Your task to perform on an android device: Open the web browser Image 0: 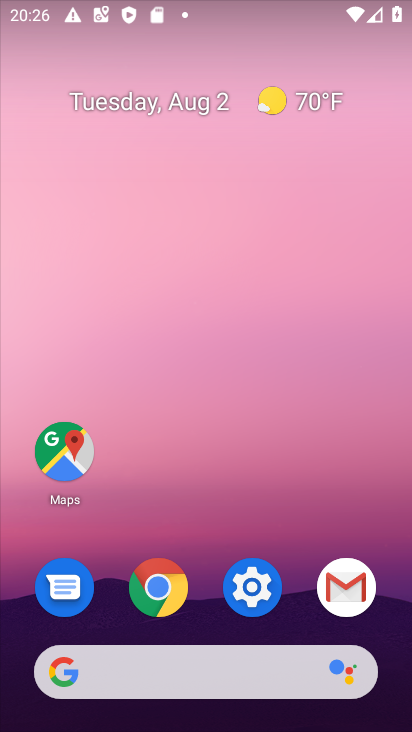
Step 0: press home button
Your task to perform on an android device: Open the web browser Image 1: 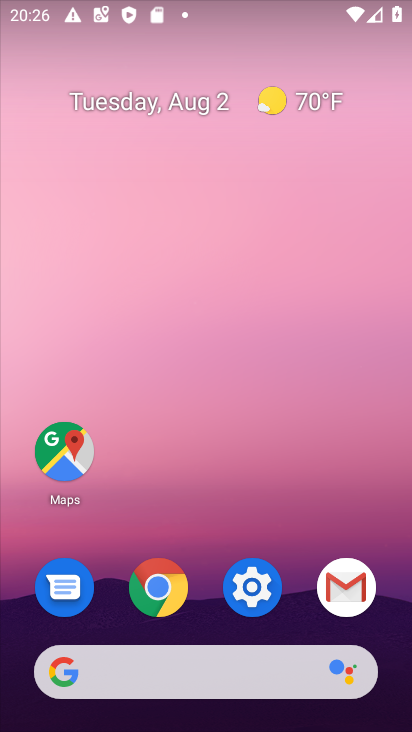
Step 1: click (146, 593)
Your task to perform on an android device: Open the web browser Image 2: 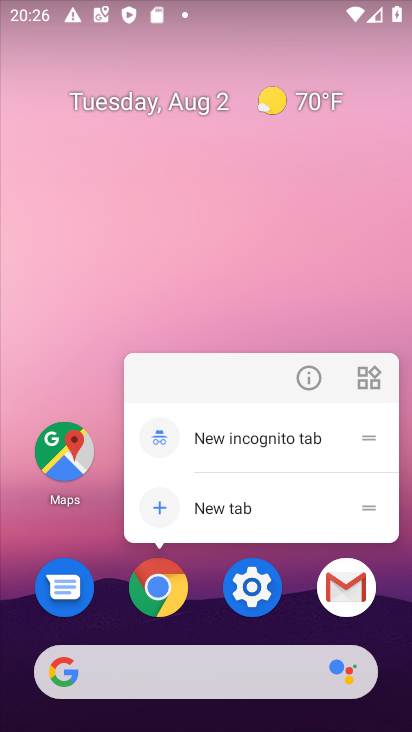
Step 2: click (146, 593)
Your task to perform on an android device: Open the web browser Image 3: 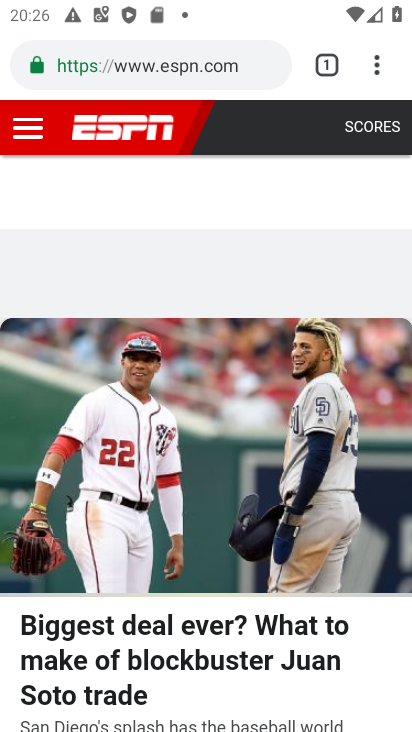
Step 3: click (380, 67)
Your task to perform on an android device: Open the web browser Image 4: 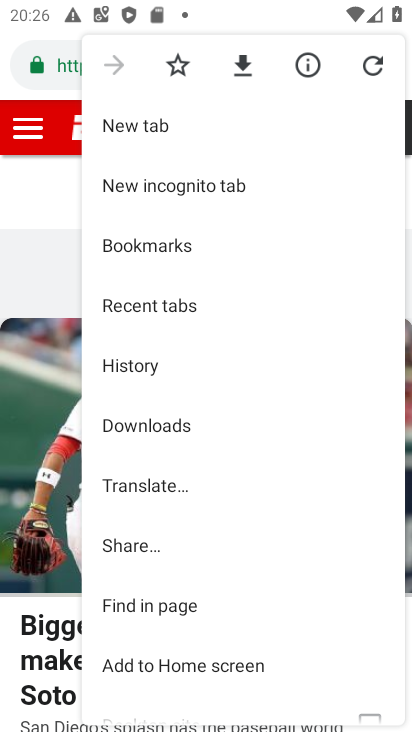
Step 4: click (159, 131)
Your task to perform on an android device: Open the web browser Image 5: 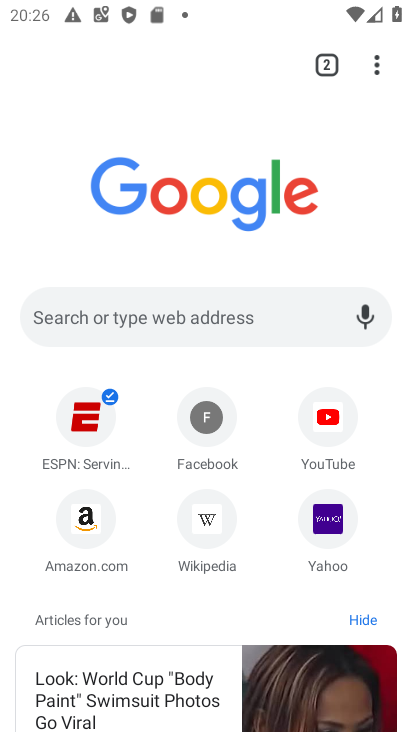
Step 5: click (149, 306)
Your task to perform on an android device: Open the web browser Image 6: 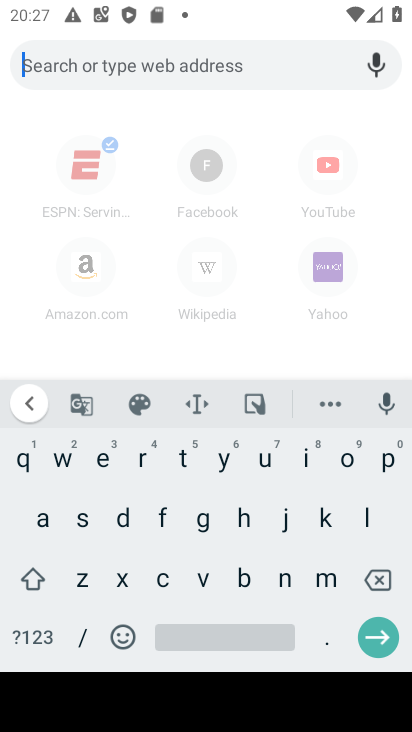
Step 6: task complete